Your task to perform on an android device: What is the news today? Image 0: 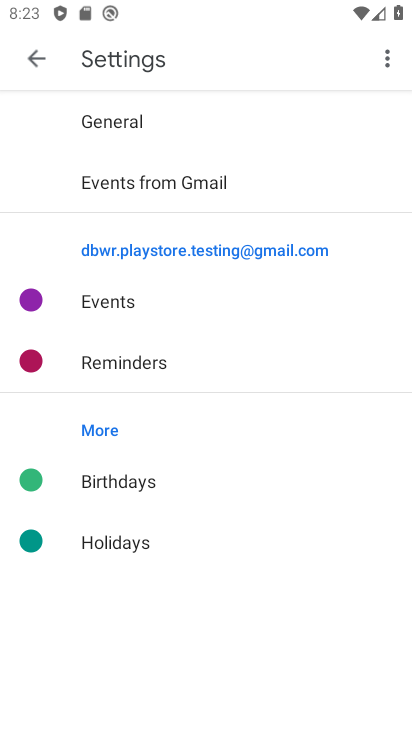
Step 0: press home button
Your task to perform on an android device: What is the news today? Image 1: 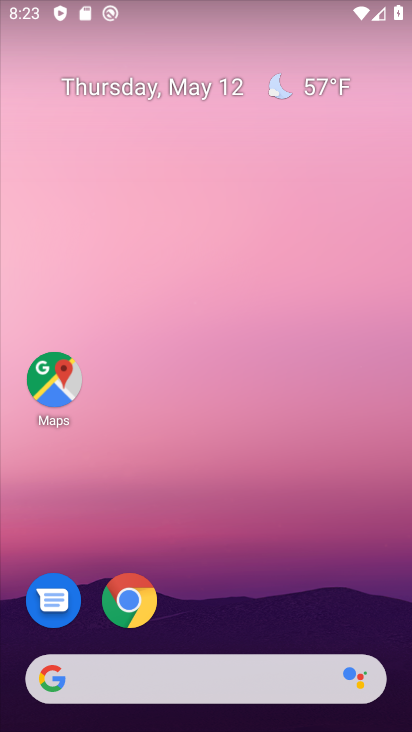
Step 1: drag from (262, 586) to (341, 151)
Your task to perform on an android device: What is the news today? Image 2: 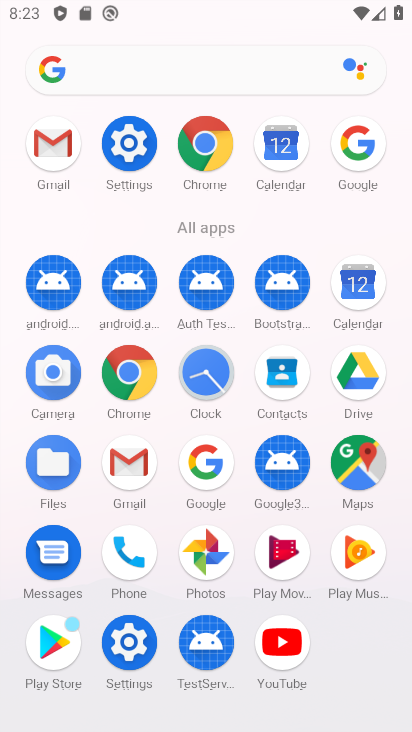
Step 2: click (135, 391)
Your task to perform on an android device: What is the news today? Image 3: 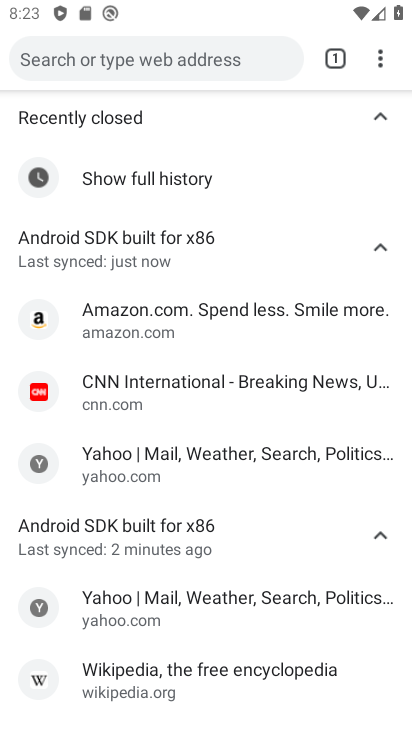
Step 3: drag from (381, 57) to (217, 128)
Your task to perform on an android device: What is the news today? Image 4: 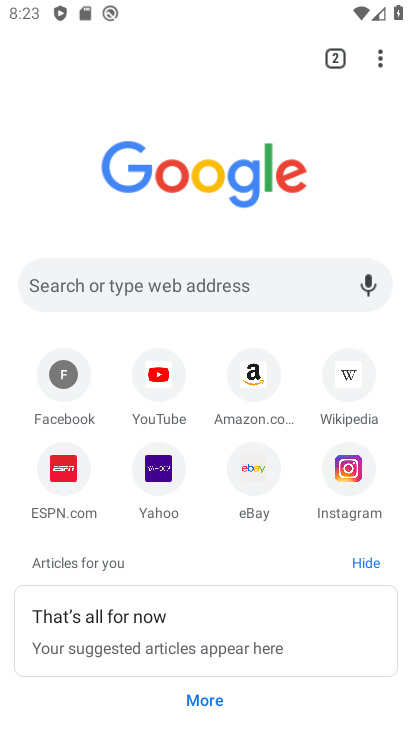
Step 4: drag from (333, 635) to (324, 162)
Your task to perform on an android device: What is the news today? Image 5: 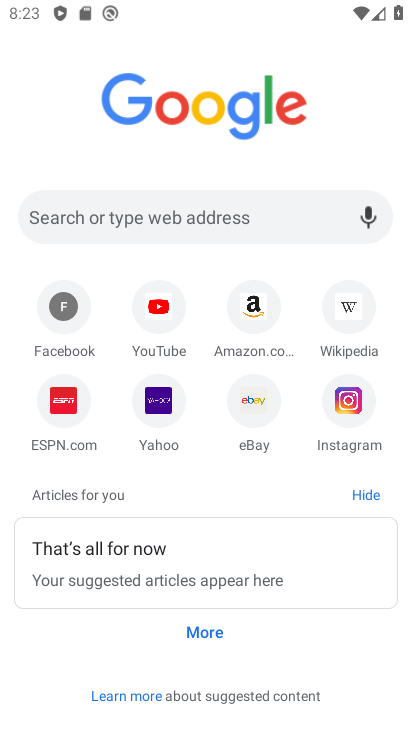
Step 5: drag from (276, 611) to (286, 296)
Your task to perform on an android device: What is the news today? Image 6: 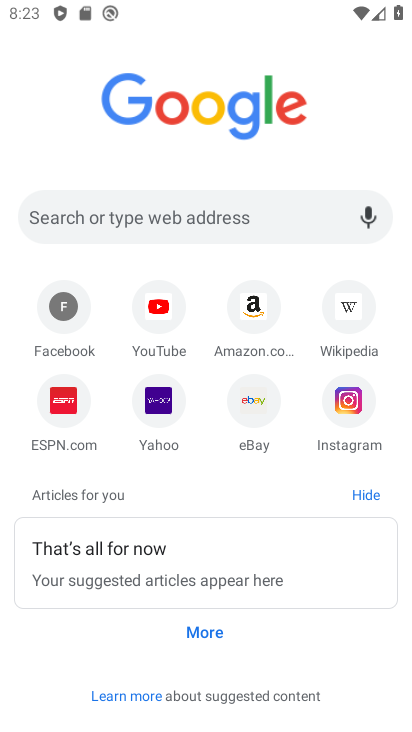
Step 6: click (205, 642)
Your task to perform on an android device: What is the news today? Image 7: 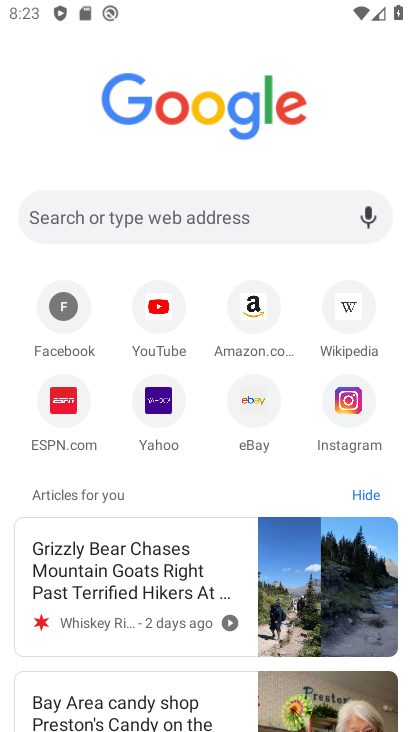
Step 7: task complete